Your task to perform on an android device: Search for vegetarian restaurants on Maps Image 0: 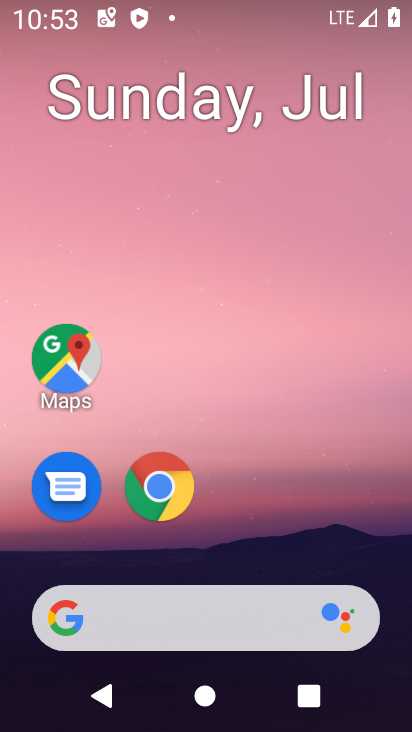
Step 0: drag from (339, 492) to (340, 64)
Your task to perform on an android device: Search for vegetarian restaurants on Maps Image 1: 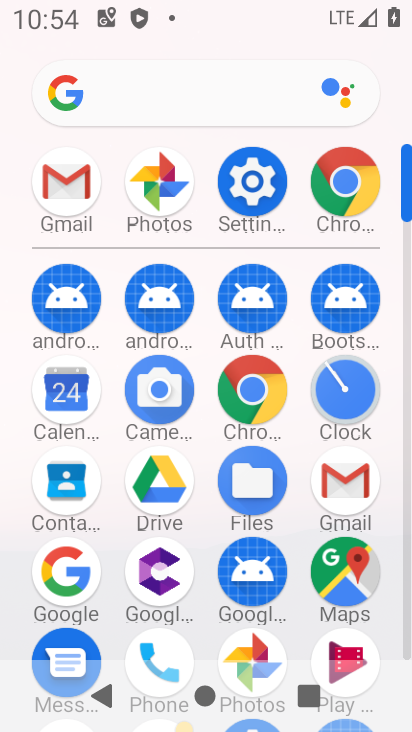
Step 1: click (330, 560)
Your task to perform on an android device: Search for vegetarian restaurants on Maps Image 2: 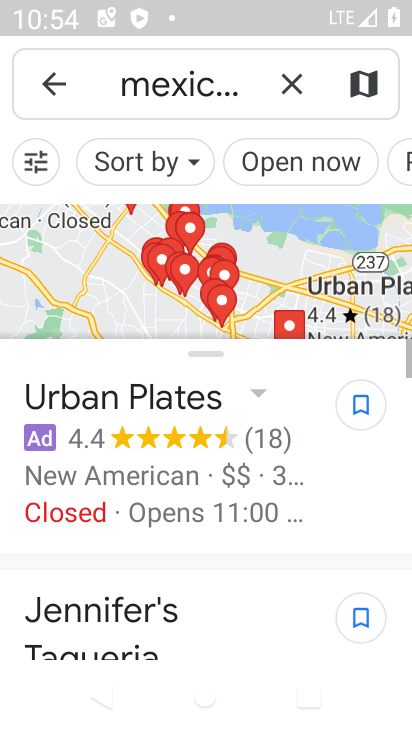
Step 2: press back button
Your task to perform on an android device: Search for vegetarian restaurants on Maps Image 3: 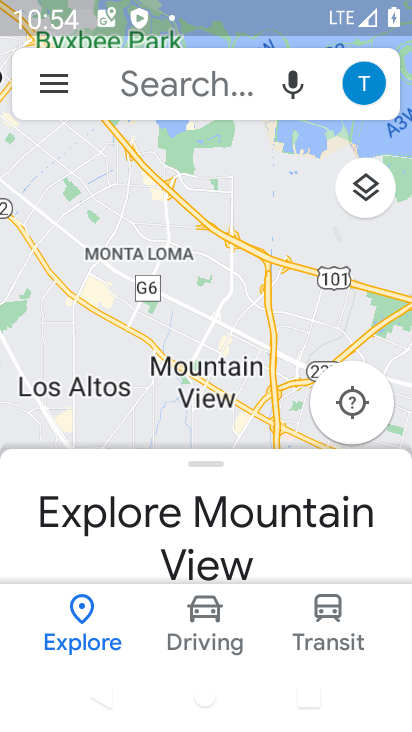
Step 3: click (116, 87)
Your task to perform on an android device: Search for vegetarian restaurants on Maps Image 4: 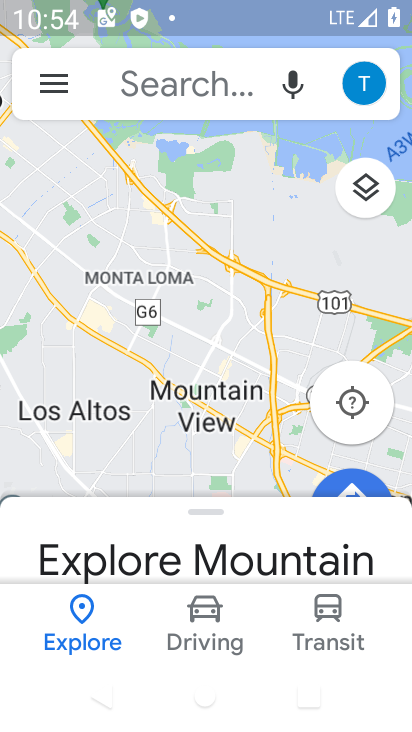
Step 4: click (136, 86)
Your task to perform on an android device: Search for vegetarian restaurants on Maps Image 5: 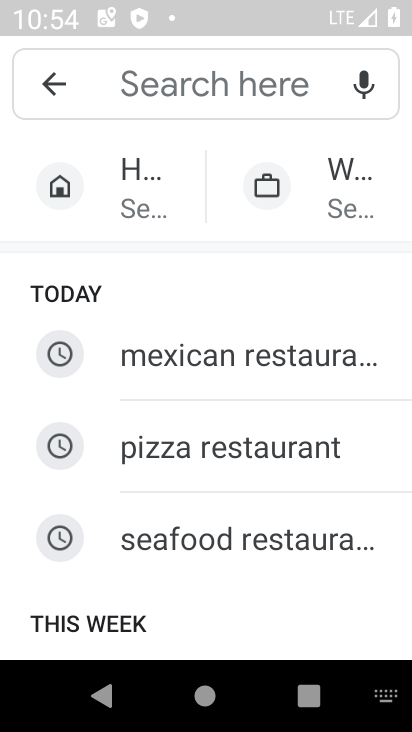
Step 5: type "vegetrain restaurants"
Your task to perform on an android device: Search for vegetarian restaurants on Maps Image 6: 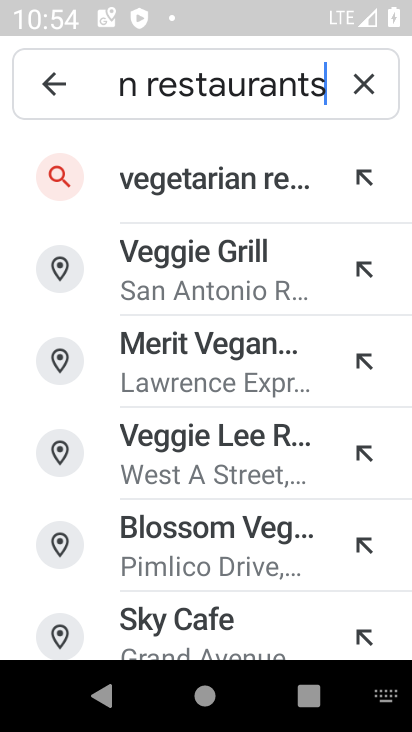
Step 6: click (231, 191)
Your task to perform on an android device: Search for vegetarian restaurants on Maps Image 7: 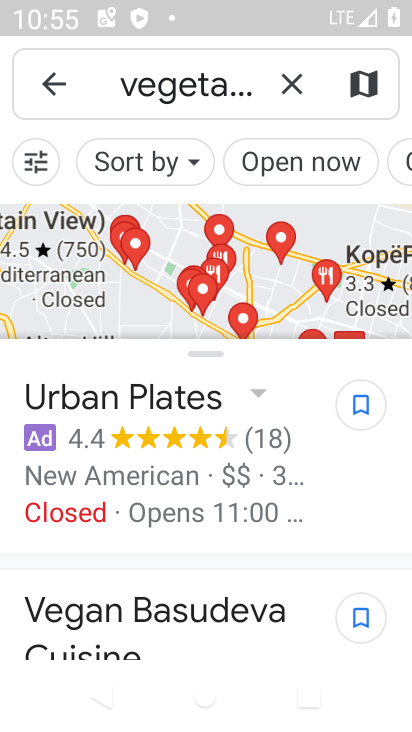
Step 7: task complete